Your task to perform on an android device: turn on bluetooth scan Image 0: 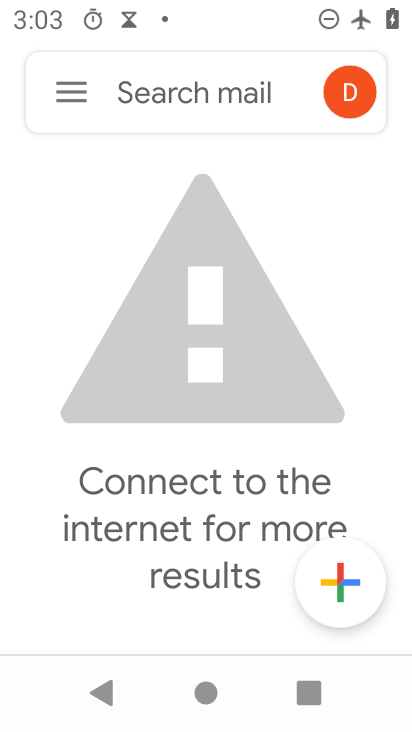
Step 0: press home button
Your task to perform on an android device: turn on bluetooth scan Image 1: 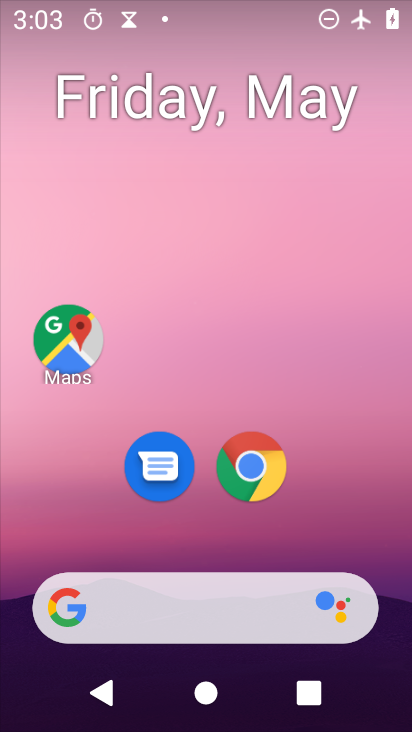
Step 1: drag from (352, 488) to (301, 36)
Your task to perform on an android device: turn on bluetooth scan Image 2: 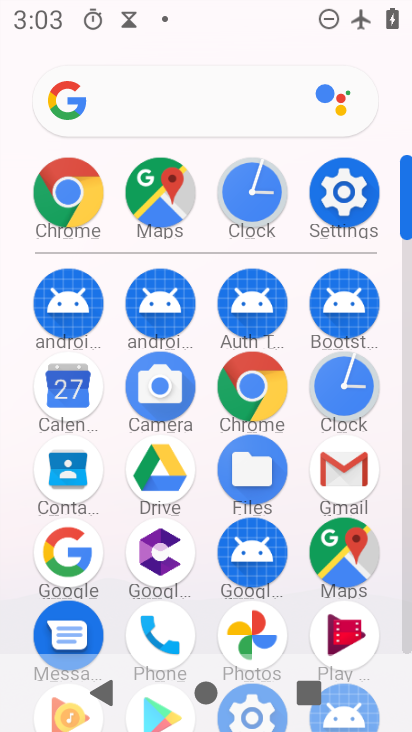
Step 2: click (353, 183)
Your task to perform on an android device: turn on bluetooth scan Image 3: 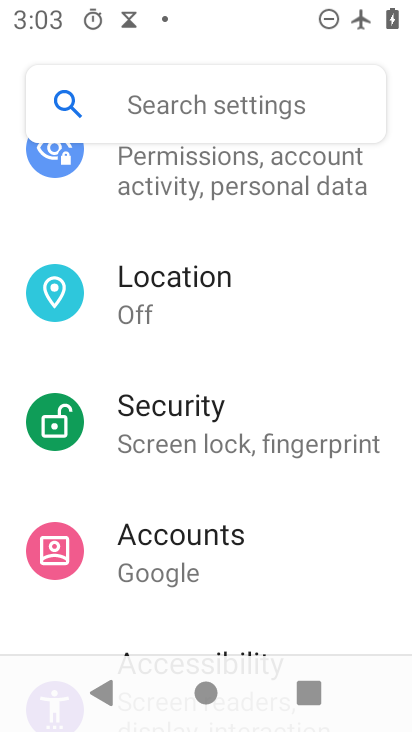
Step 3: drag from (213, 180) to (219, 674)
Your task to perform on an android device: turn on bluetooth scan Image 4: 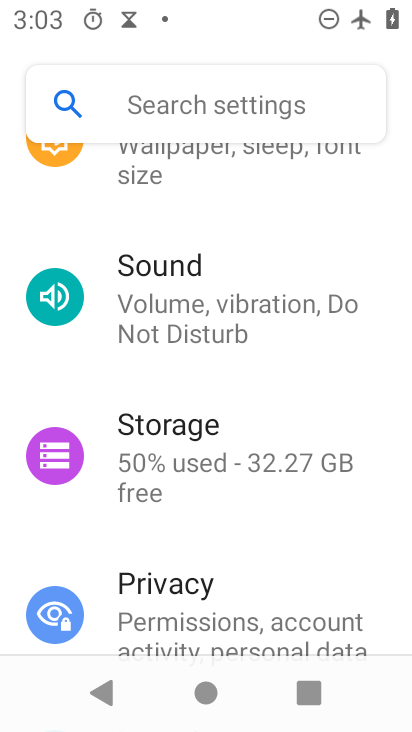
Step 4: drag from (265, 226) to (223, 601)
Your task to perform on an android device: turn on bluetooth scan Image 5: 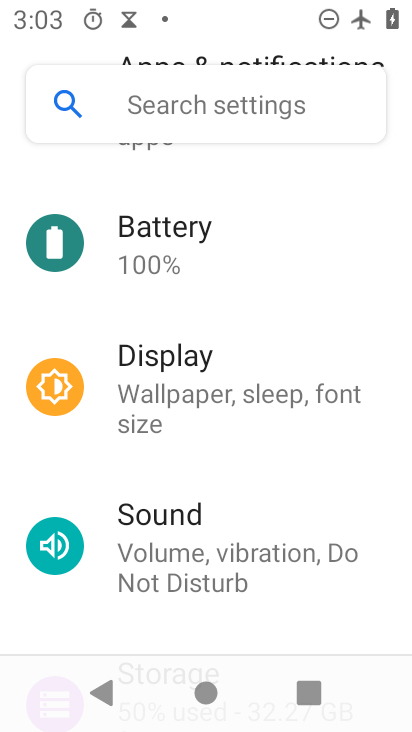
Step 5: drag from (222, 236) to (226, 612)
Your task to perform on an android device: turn on bluetooth scan Image 6: 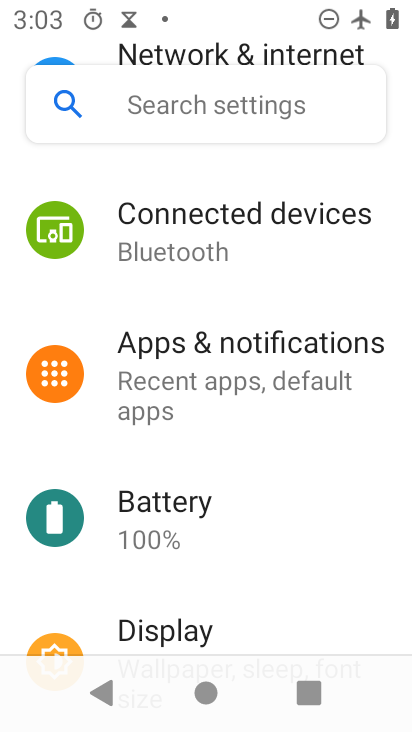
Step 6: drag from (264, 154) to (223, 606)
Your task to perform on an android device: turn on bluetooth scan Image 7: 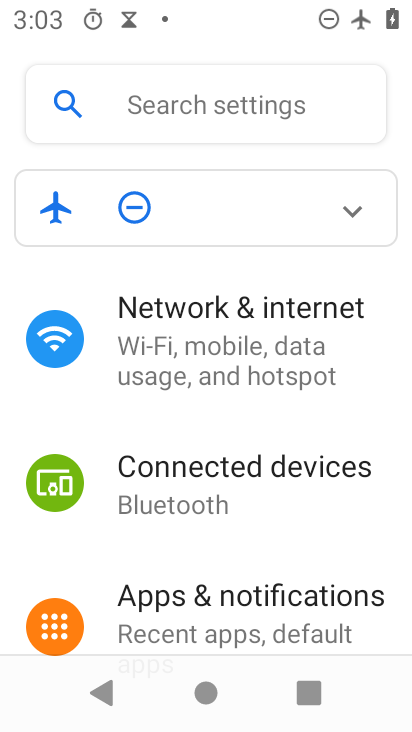
Step 7: drag from (239, 558) to (236, 192)
Your task to perform on an android device: turn on bluetooth scan Image 8: 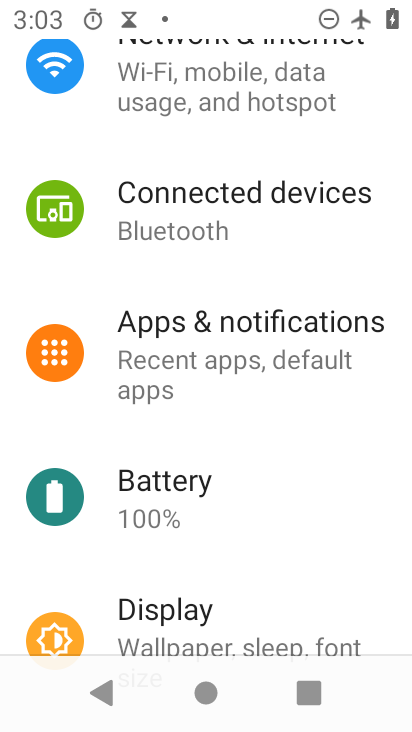
Step 8: drag from (196, 568) to (197, 161)
Your task to perform on an android device: turn on bluetooth scan Image 9: 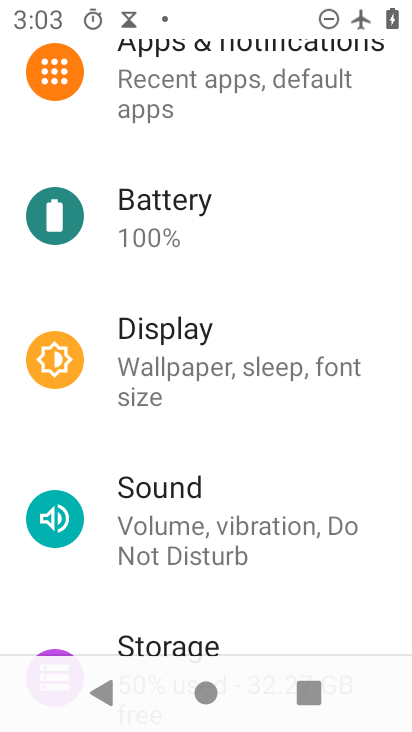
Step 9: drag from (210, 573) to (239, 137)
Your task to perform on an android device: turn on bluetooth scan Image 10: 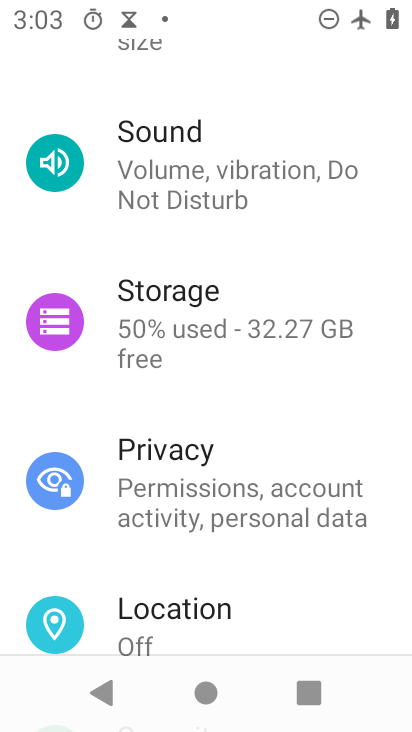
Step 10: drag from (222, 597) to (236, 202)
Your task to perform on an android device: turn on bluetooth scan Image 11: 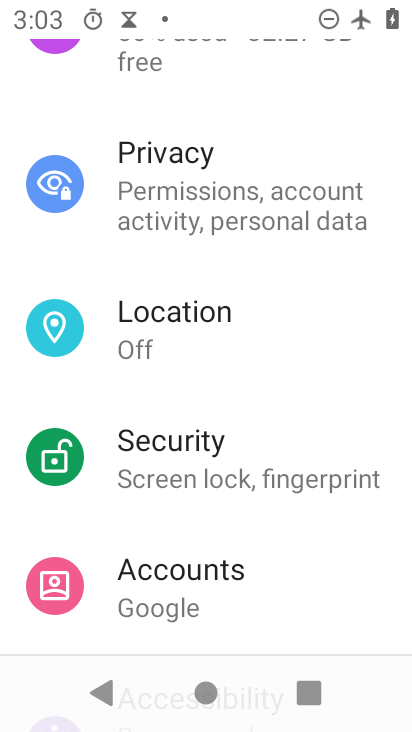
Step 11: drag from (226, 604) to (243, 193)
Your task to perform on an android device: turn on bluetooth scan Image 12: 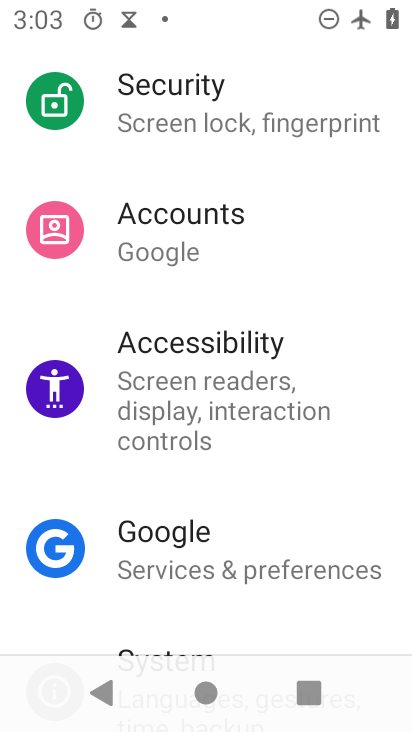
Step 12: drag from (226, 556) to (242, 144)
Your task to perform on an android device: turn on bluetooth scan Image 13: 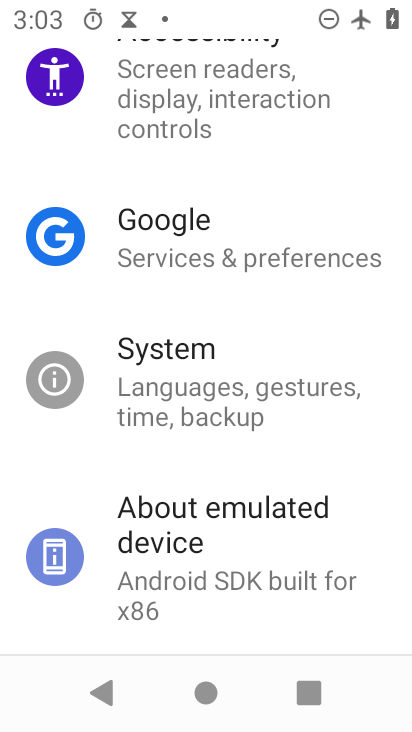
Step 13: click (264, 155)
Your task to perform on an android device: turn on bluetooth scan Image 14: 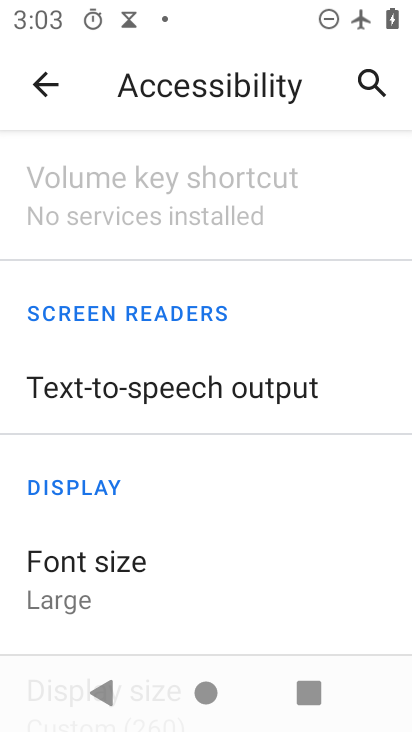
Step 14: click (44, 78)
Your task to perform on an android device: turn on bluetooth scan Image 15: 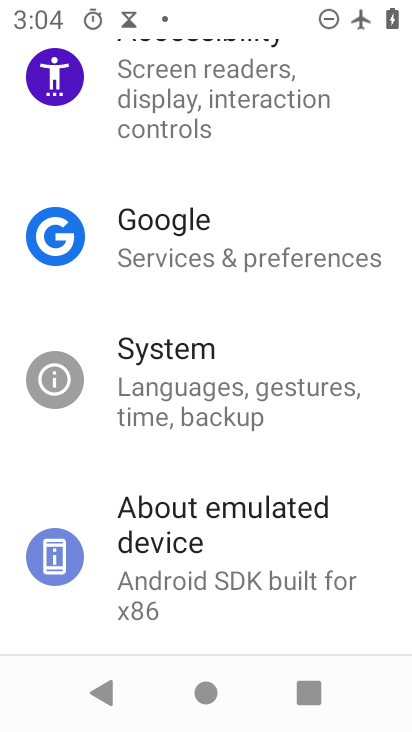
Step 15: drag from (198, 216) to (186, 513)
Your task to perform on an android device: turn on bluetooth scan Image 16: 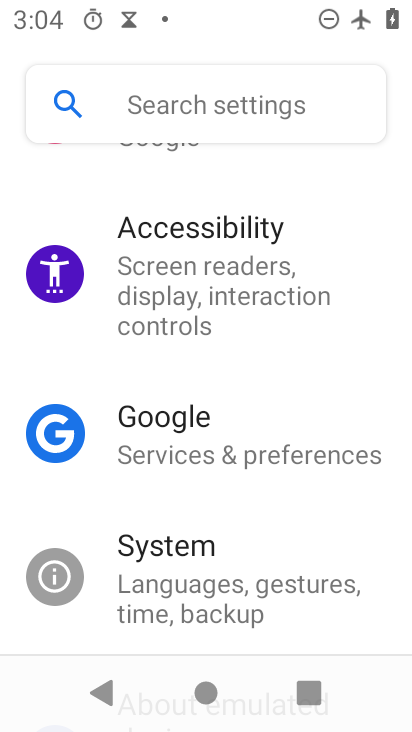
Step 16: drag from (212, 569) to (217, 204)
Your task to perform on an android device: turn on bluetooth scan Image 17: 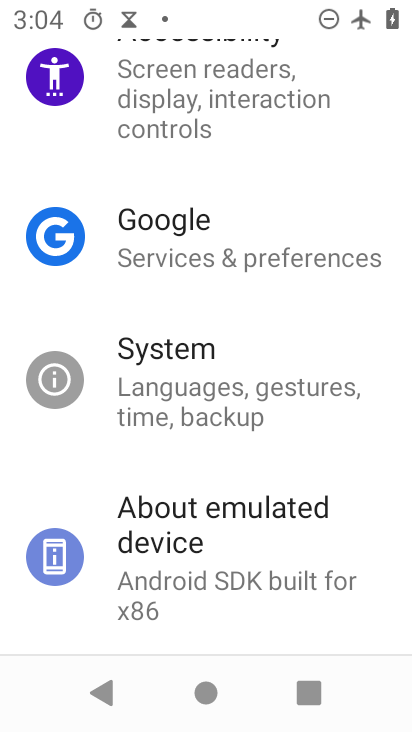
Step 17: drag from (242, 600) to (257, 163)
Your task to perform on an android device: turn on bluetooth scan Image 18: 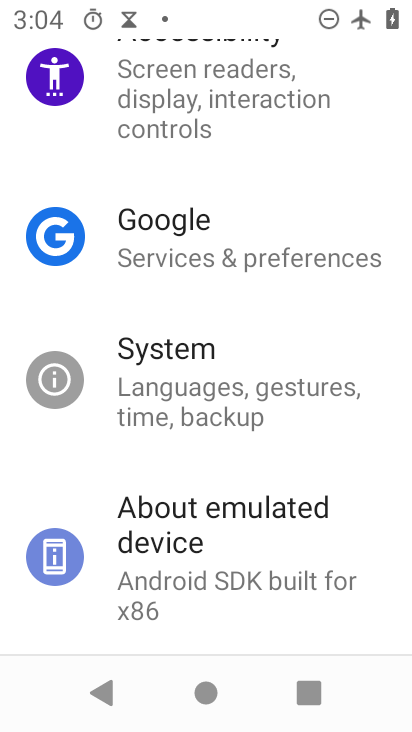
Step 18: drag from (277, 139) to (258, 580)
Your task to perform on an android device: turn on bluetooth scan Image 19: 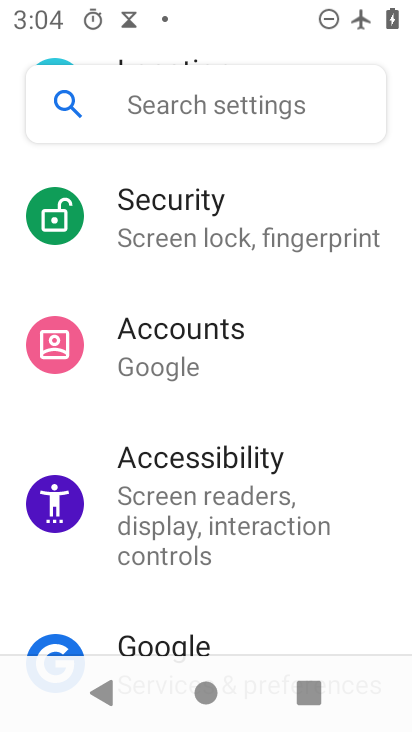
Step 19: drag from (249, 600) to (306, 59)
Your task to perform on an android device: turn on bluetooth scan Image 20: 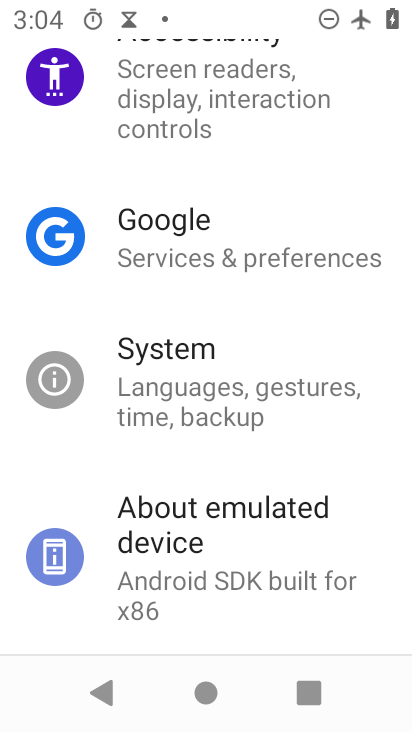
Step 20: drag from (261, 586) to (289, 128)
Your task to perform on an android device: turn on bluetooth scan Image 21: 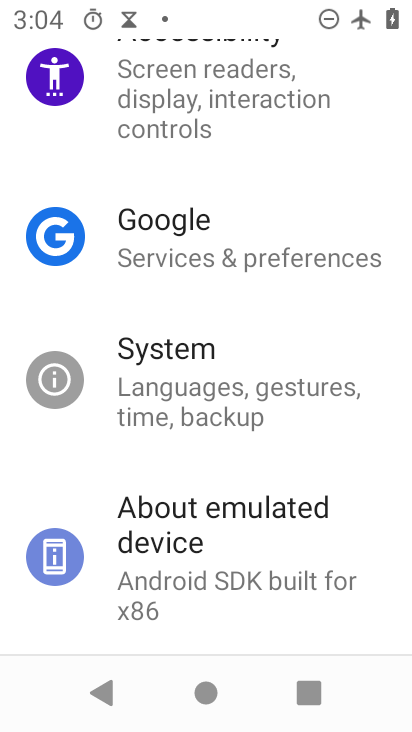
Step 21: drag from (290, 140) to (247, 535)
Your task to perform on an android device: turn on bluetooth scan Image 22: 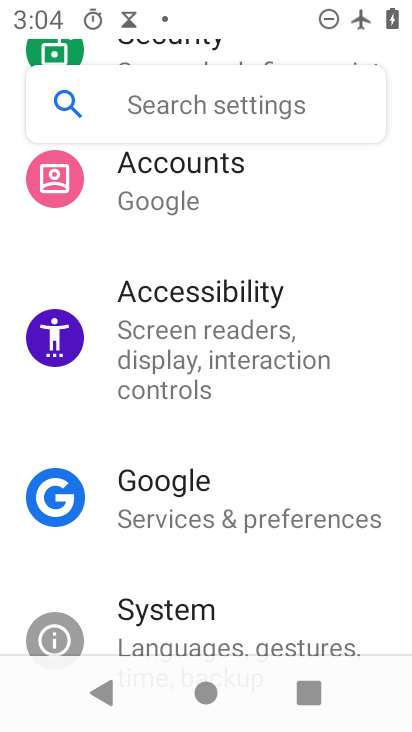
Step 22: drag from (276, 124) to (220, 586)
Your task to perform on an android device: turn on bluetooth scan Image 23: 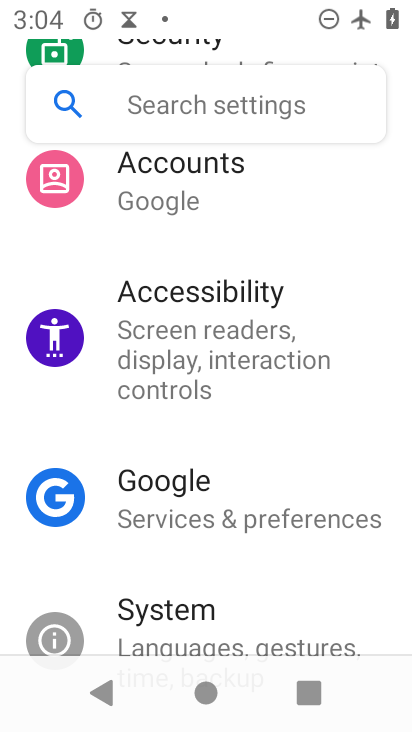
Step 23: drag from (211, 206) to (216, 685)
Your task to perform on an android device: turn on bluetooth scan Image 24: 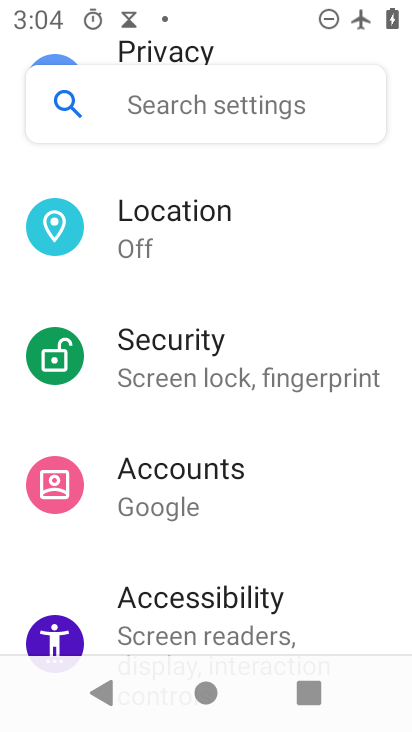
Step 24: drag from (283, 303) to (270, 682)
Your task to perform on an android device: turn on bluetooth scan Image 25: 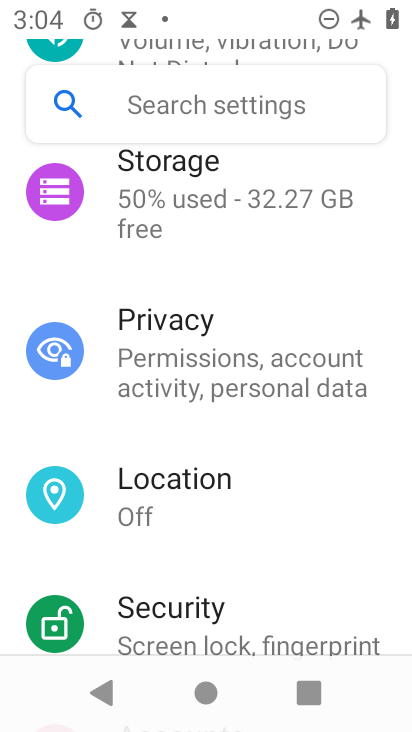
Step 25: click (174, 494)
Your task to perform on an android device: turn on bluetooth scan Image 26: 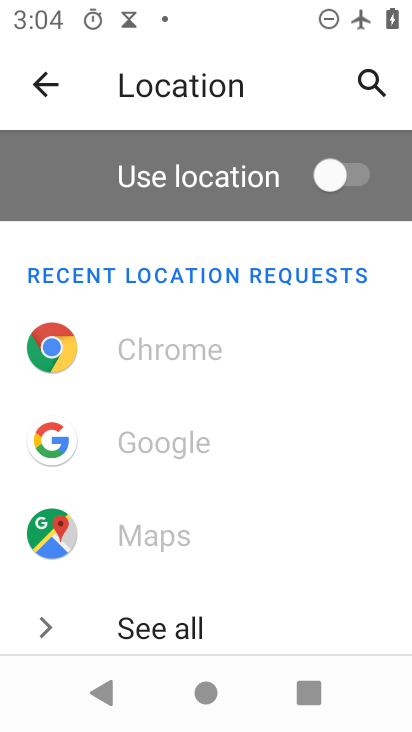
Step 26: drag from (202, 582) to (220, 299)
Your task to perform on an android device: turn on bluetooth scan Image 27: 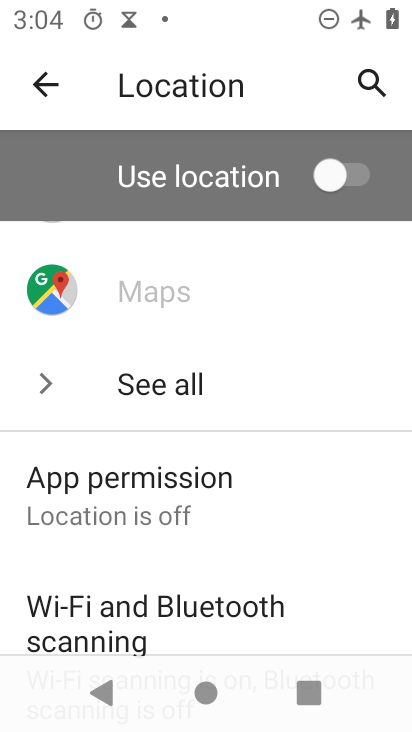
Step 27: drag from (168, 569) to (168, 216)
Your task to perform on an android device: turn on bluetooth scan Image 28: 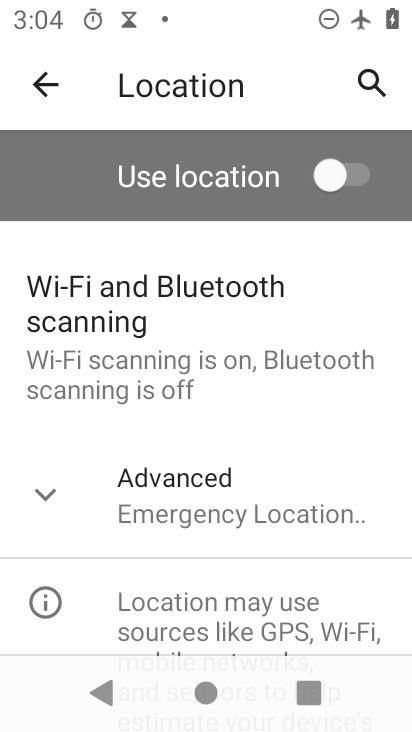
Step 28: drag from (289, 633) to (275, 329)
Your task to perform on an android device: turn on bluetooth scan Image 29: 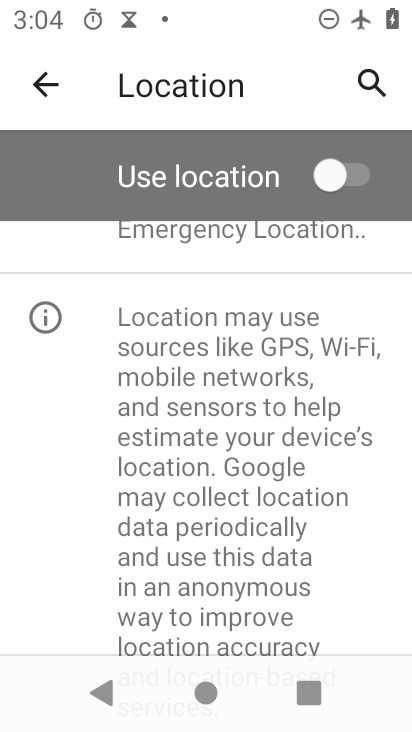
Step 29: drag from (275, 329) to (259, 648)
Your task to perform on an android device: turn on bluetooth scan Image 30: 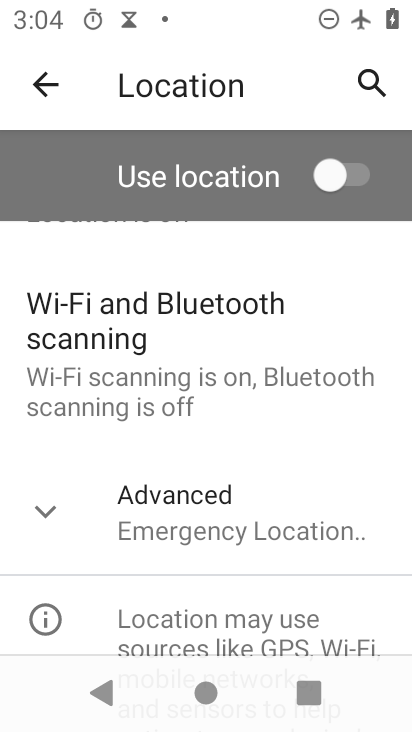
Step 30: drag from (259, 291) to (256, 599)
Your task to perform on an android device: turn on bluetooth scan Image 31: 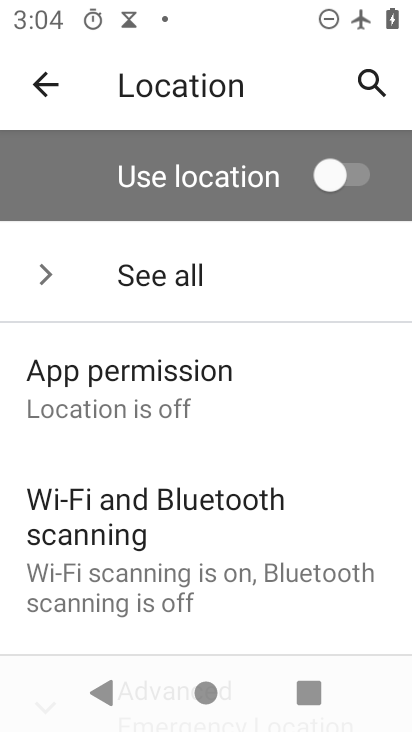
Step 31: click (182, 534)
Your task to perform on an android device: turn on bluetooth scan Image 32: 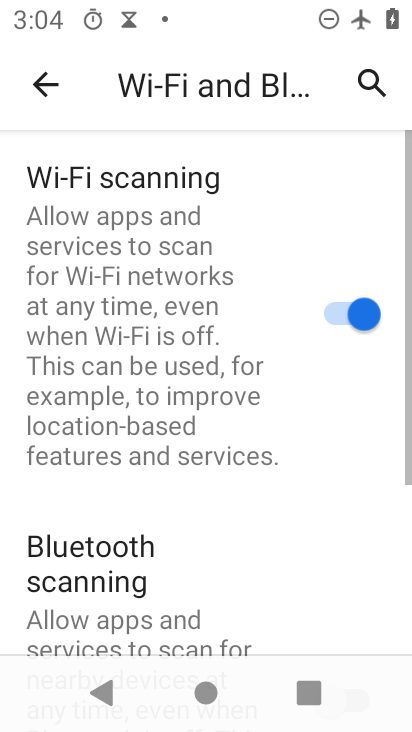
Step 32: drag from (258, 596) to (294, 191)
Your task to perform on an android device: turn on bluetooth scan Image 33: 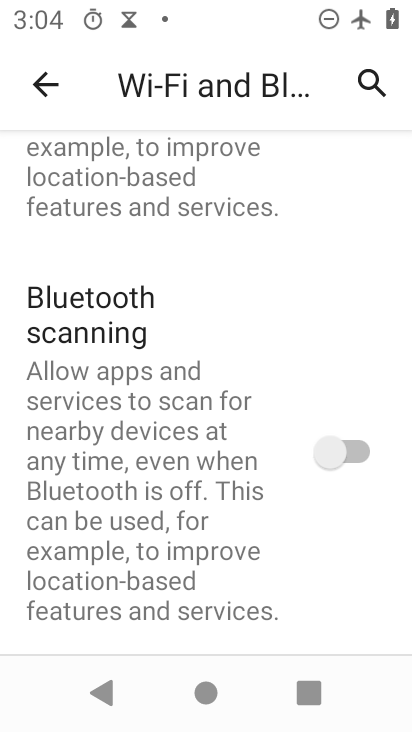
Step 33: click (346, 453)
Your task to perform on an android device: turn on bluetooth scan Image 34: 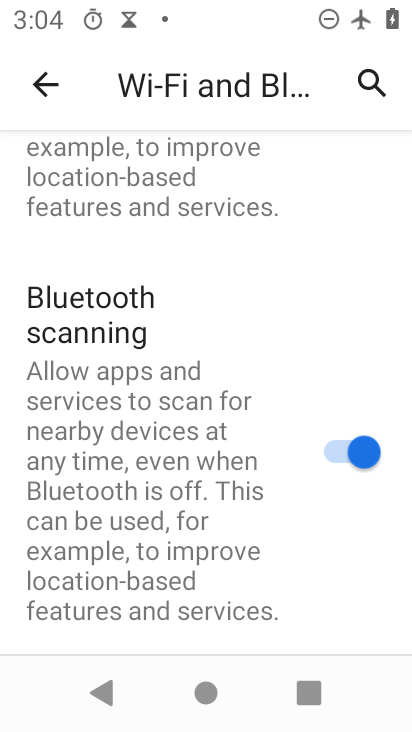
Step 34: task complete